Your task to perform on an android device: What is the news today? Image 0: 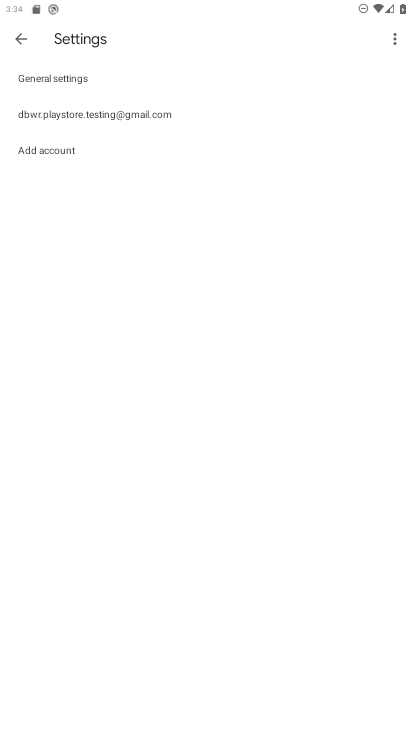
Step 0: press home button
Your task to perform on an android device: What is the news today? Image 1: 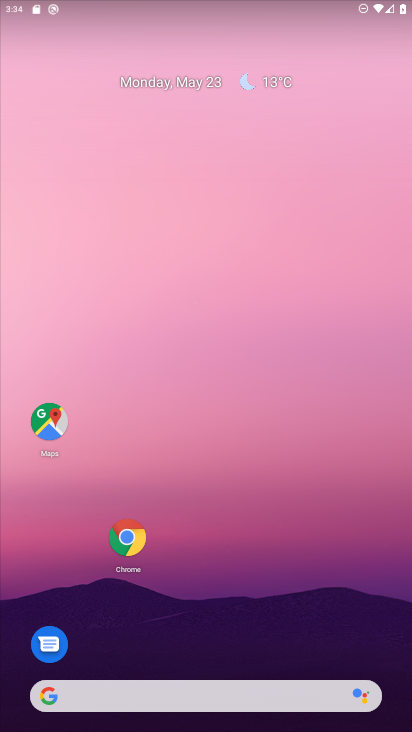
Step 1: click (130, 531)
Your task to perform on an android device: What is the news today? Image 2: 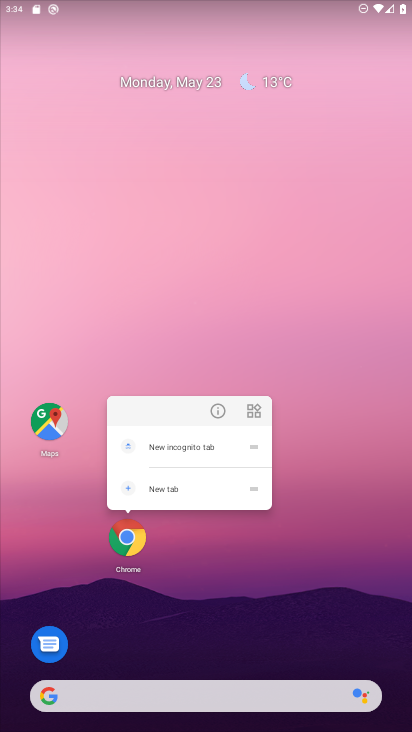
Step 2: click (126, 540)
Your task to perform on an android device: What is the news today? Image 3: 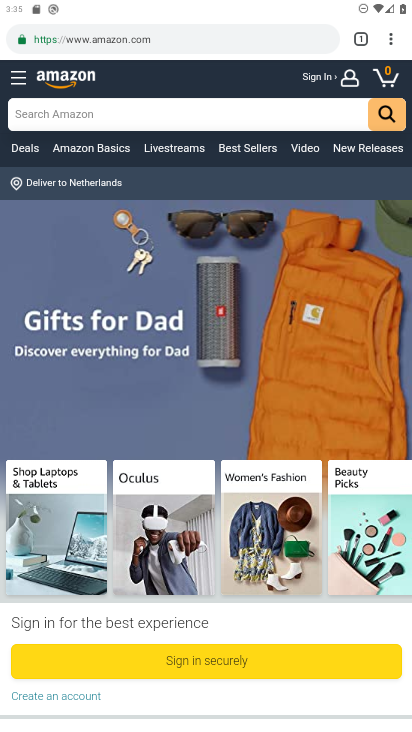
Step 3: click (239, 38)
Your task to perform on an android device: What is the news today? Image 4: 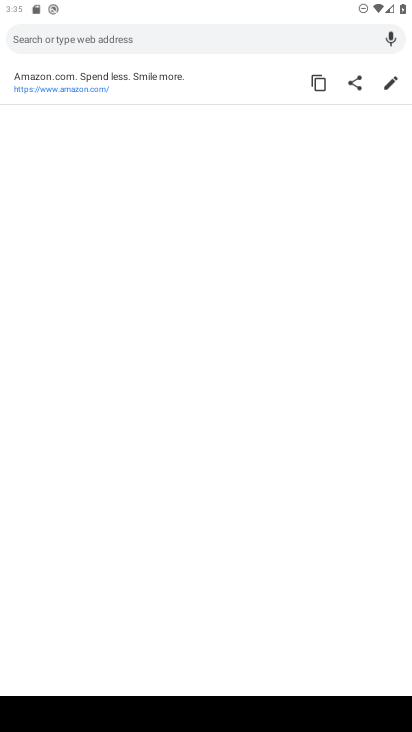
Step 4: type "news"
Your task to perform on an android device: What is the news today? Image 5: 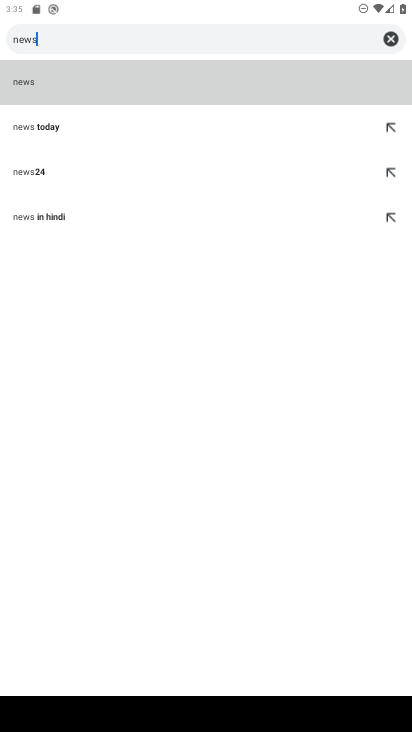
Step 5: click (16, 76)
Your task to perform on an android device: What is the news today? Image 6: 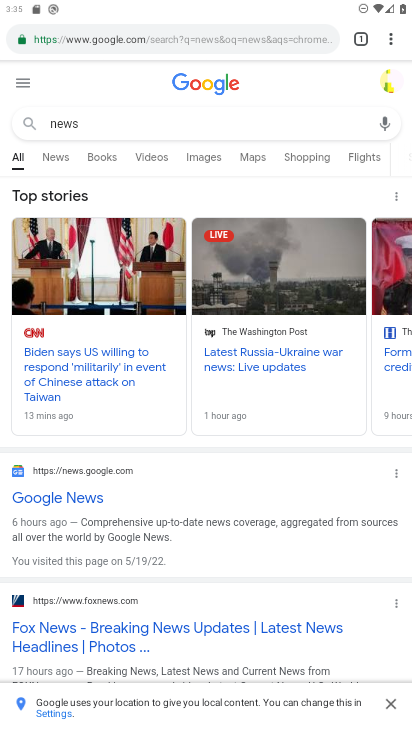
Step 6: click (54, 152)
Your task to perform on an android device: What is the news today? Image 7: 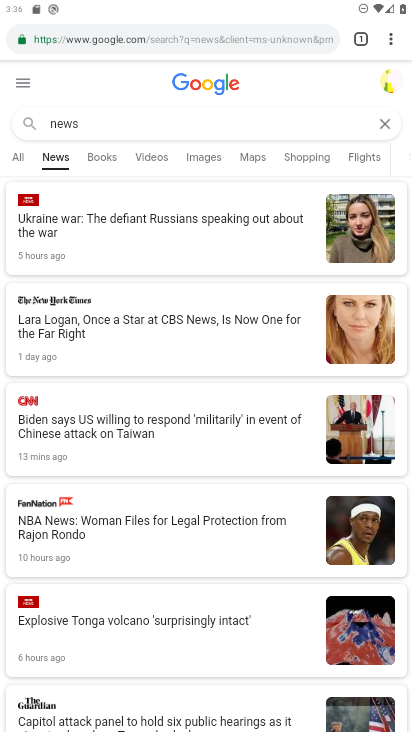
Step 7: task complete